Your task to perform on an android device: Open accessibility settings Image 0: 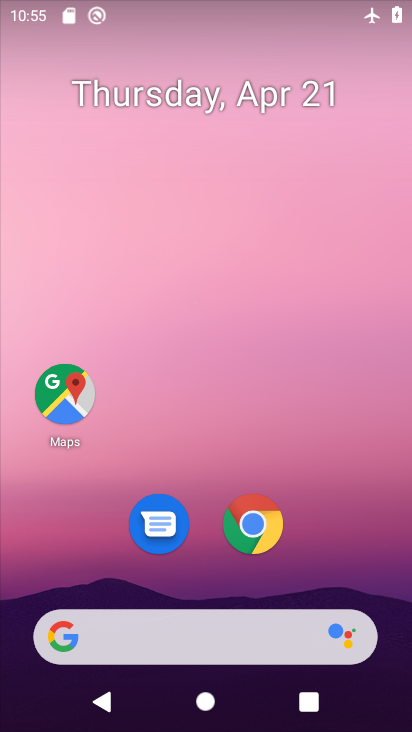
Step 0: drag from (351, 547) to (376, 101)
Your task to perform on an android device: Open accessibility settings Image 1: 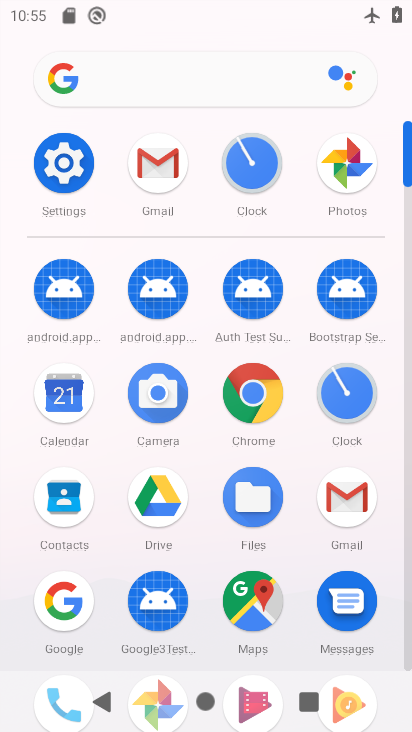
Step 1: click (71, 159)
Your task to perform on an android device: Open accessibility settings Image 2: 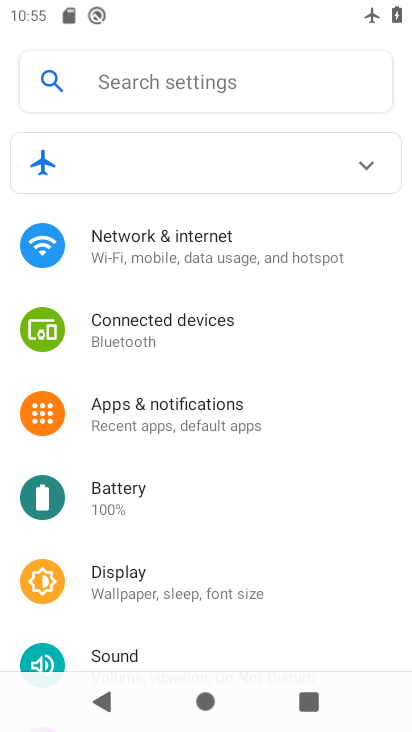
Step 2: drag from (189, 545) to (251, 167)
Your task to perform on an android device: Open accessibility settings Image 3: 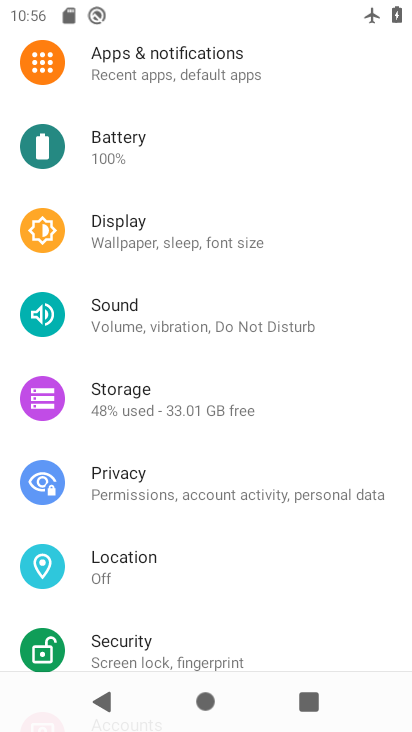
Step 3: drag from (232, 553) to (252, 185)
Your task to perform on an android device: Open accessibility settings Image 4: 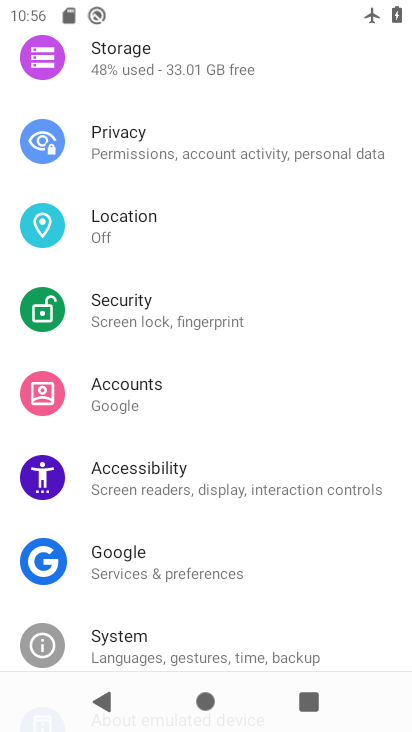
Step 4: click (188, 470)
Your task to perform on an android device: Open accessibility settings Image 5: 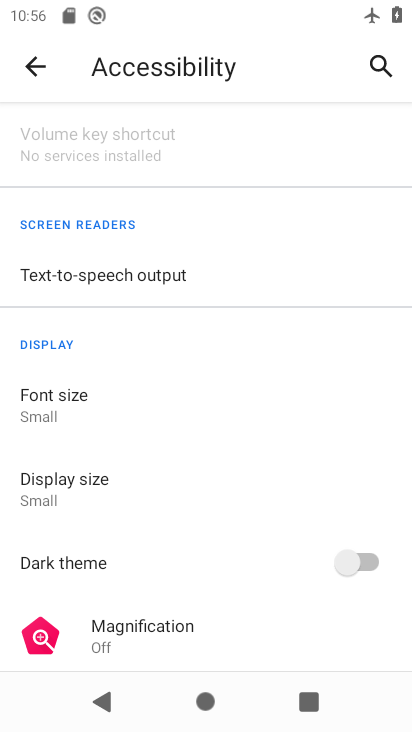
Step 5: task complete